Your task to perform on an android device: toggle show notifications on the lock screen Image 0: 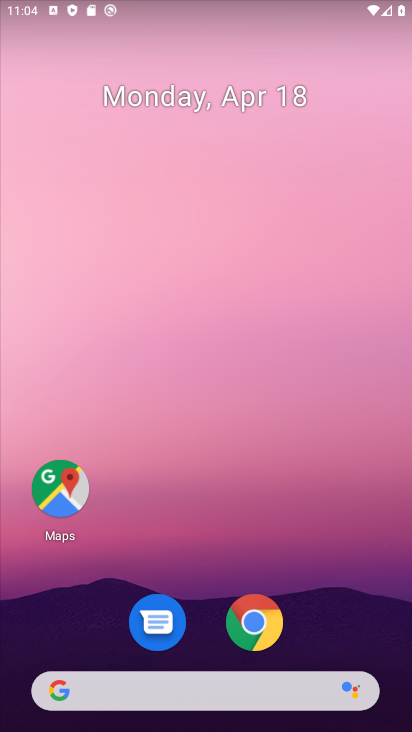
Step 0: drag from (207, 650) to (230, 121)
Your task to perform on an android device: toggle show notifications on the lock screen Image 1: 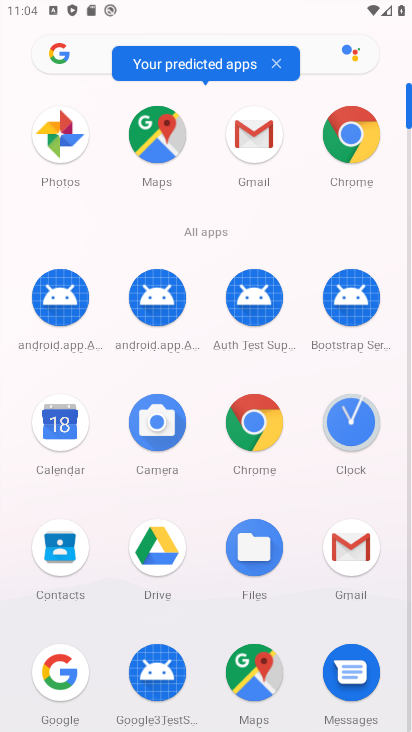
Step 1: drag from (214, 619) to (236, 166)
Your task to perform on an android device: toggle show notifications on the lock screen Image 2: 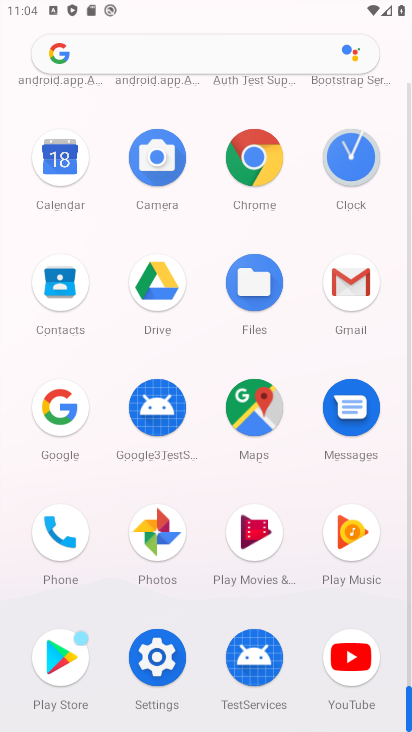
Step 2: click (164, 675)
Your task to perform on an android device: toggle show notifications on the lock screen Image 3: 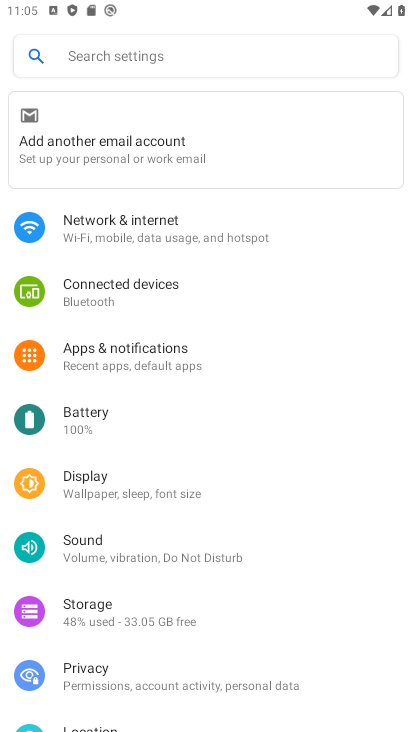
Step 3: click (165, 350)
Your task to perform on an android device: toggle show notifications on the lock screen Image 4: 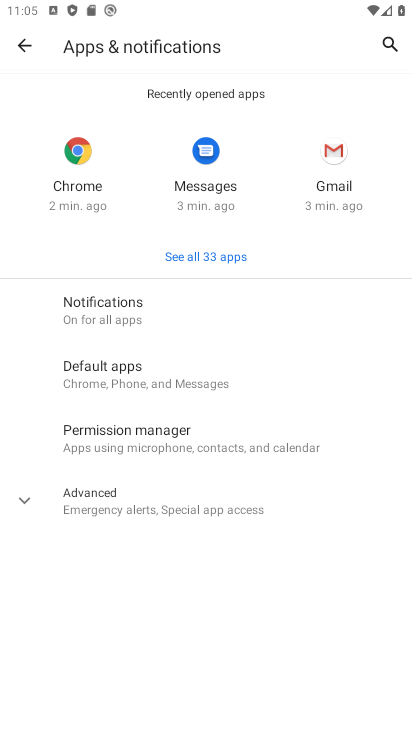
Step 4: click (125, 311)
Your task to perform on an android device: toggle show notifications on the lock screen Image 5: 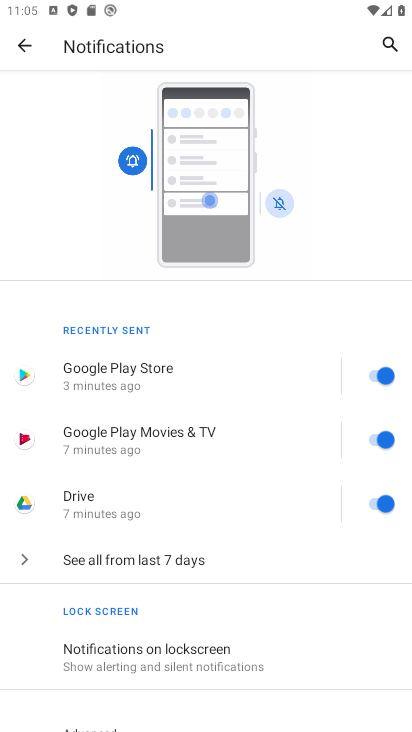
Step 5: click (186, 651)
Your task to perform on an android device: toggle show notifications on the lock screen Image 6: 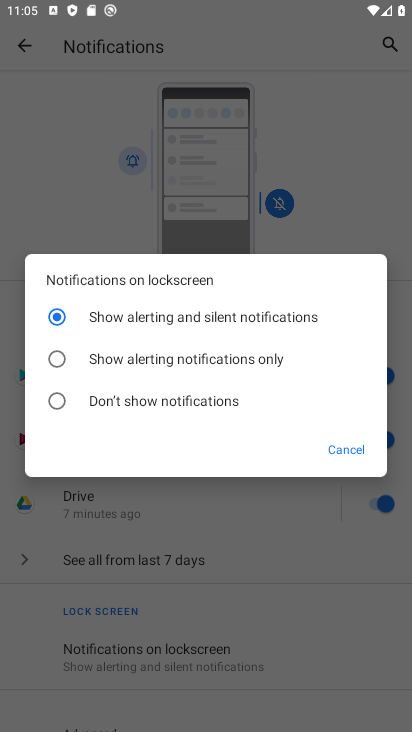
Step 6: click (132, 355)
Your task to perform on an android device: toggle show notifications on the lock screen Image 7: 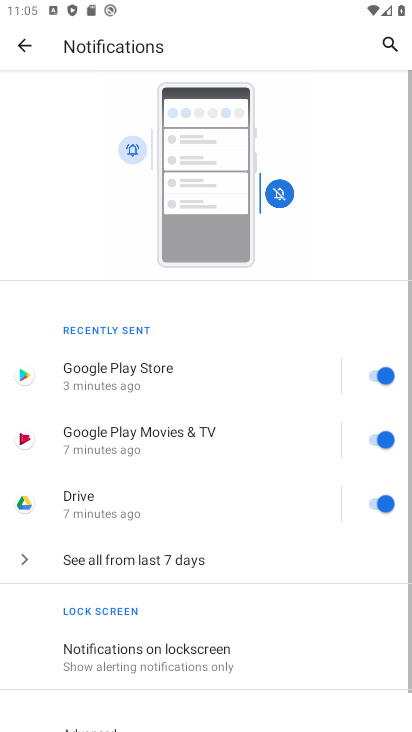
Step 7: task complete